Your task to perform on an android device: Open Maps and search for coffee Image 0: 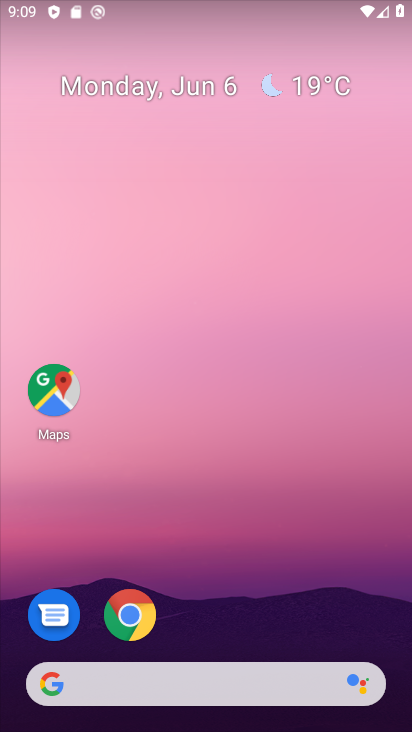
Step 0: click (69, 405)
Your task to perform on an android device: Open Maps and search for coffee Image 1: 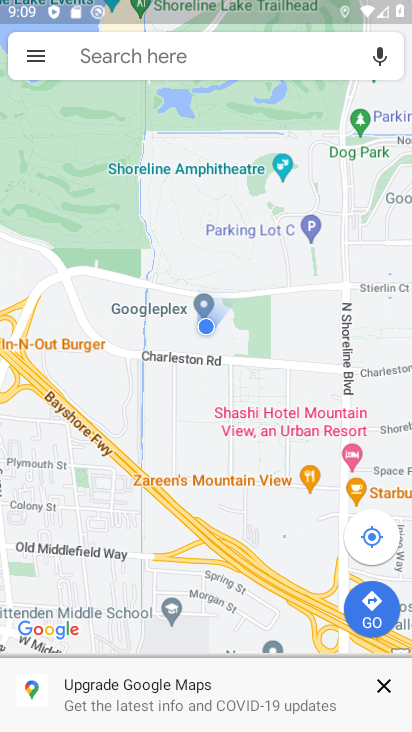
Step 1: click (201, 61)
Your task to perform on an android device: Open Maps and search for coffee Image 2: 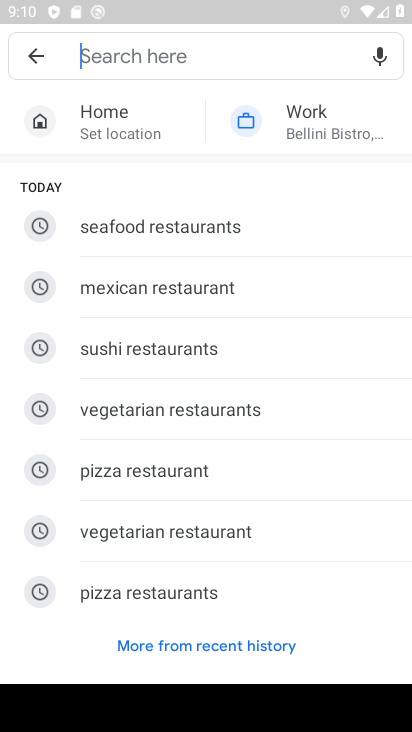
Step 2: task complete